Your task to perform on an android device: check data usage Image 0: 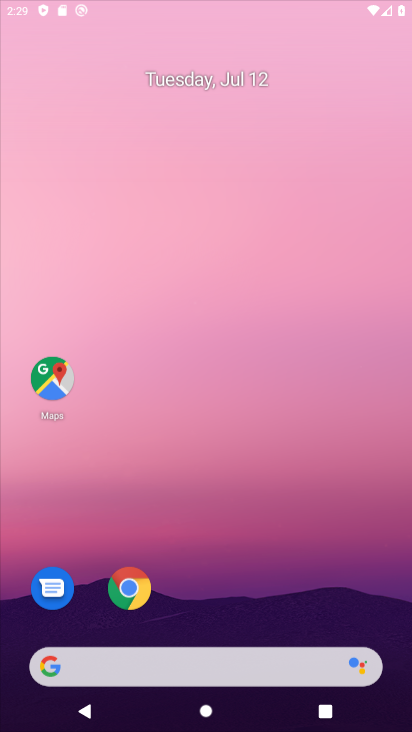
Step 0: click (155, 162)
Your task to perform on an android device: check data usage Image 1: 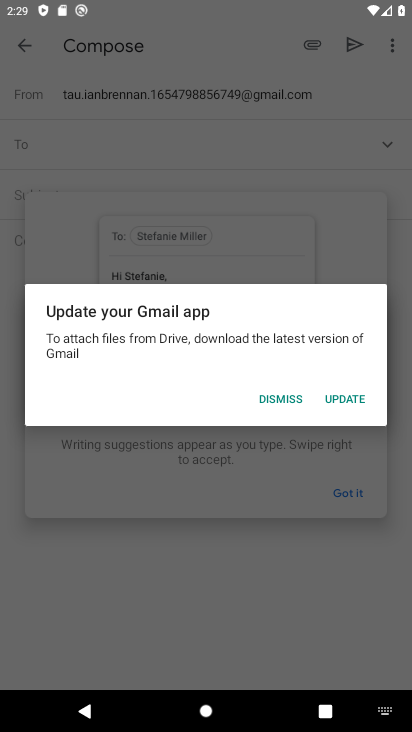
Step 1: press back button
Your task to perform on an android device: check data usage Image 2: 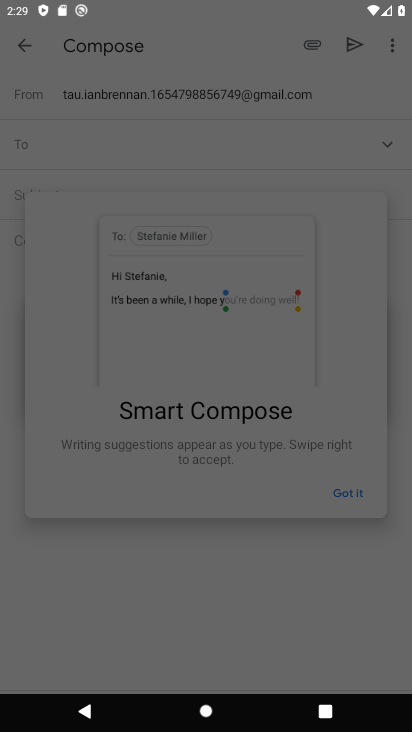
Step 2: press back button
Your task to perform on an android device: check data usage Image 3: 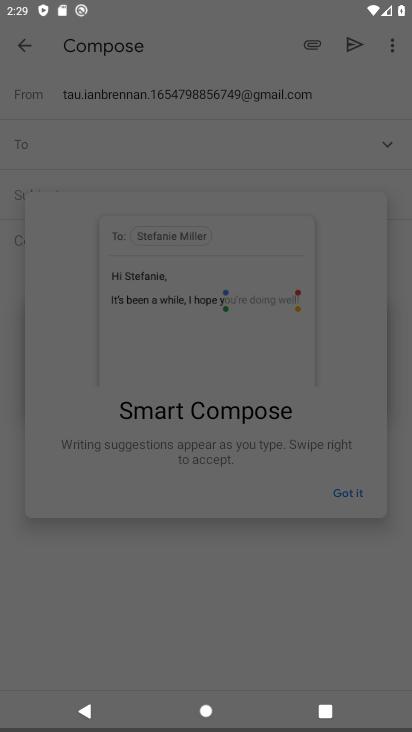
Step 3: click (273, 396)
Your task to perform on an android device: check data usage Image 4: 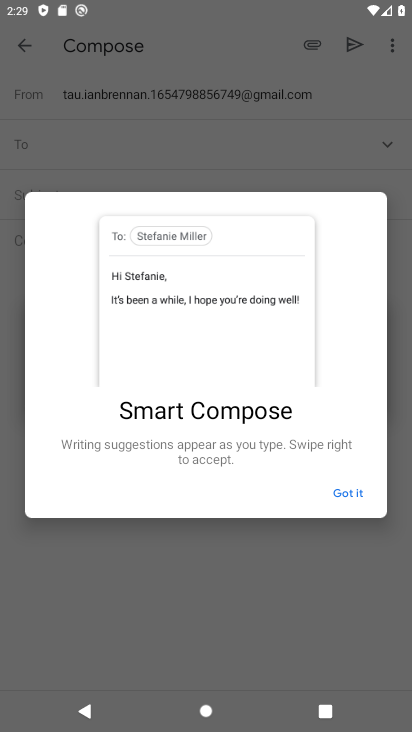
Step 4: click (372, 495)
Your task to perform on an android device: check data usage Image 5: 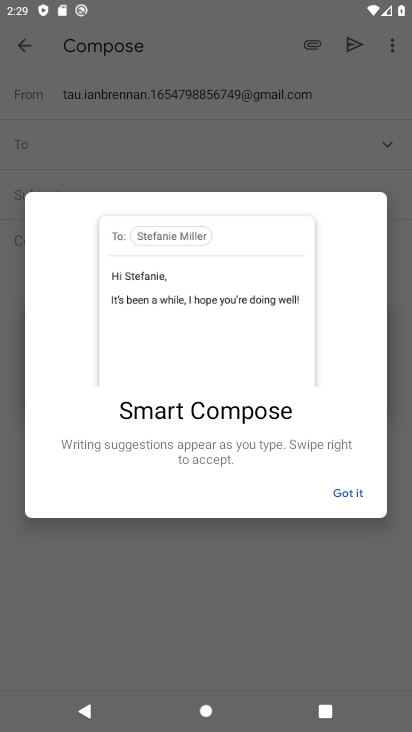
Step 5: click (370, 495)
Your task to perform on an android device: check data usage Image 6: 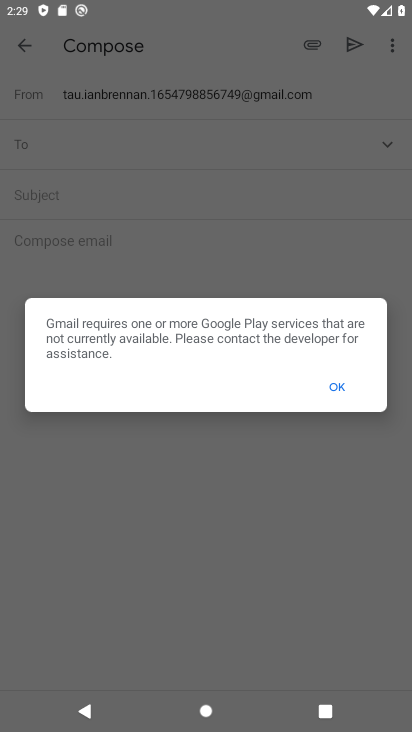
Step 6: click (328, 383)
Your task to perform on an android device: check data usage Image 7: 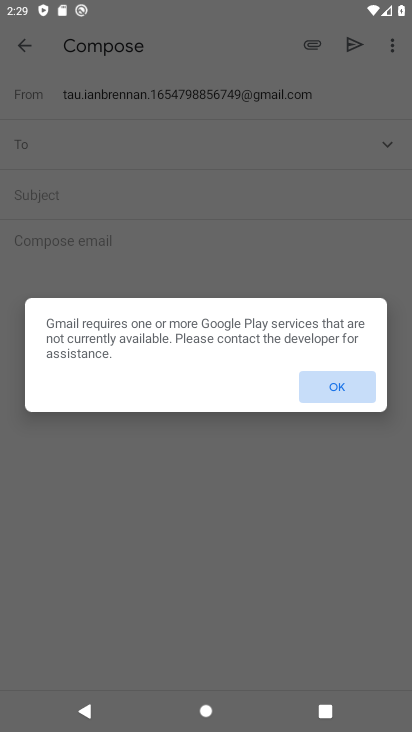
Step 7: click (328, 383)
Your task to perform on an android device: check data usage Image 8: 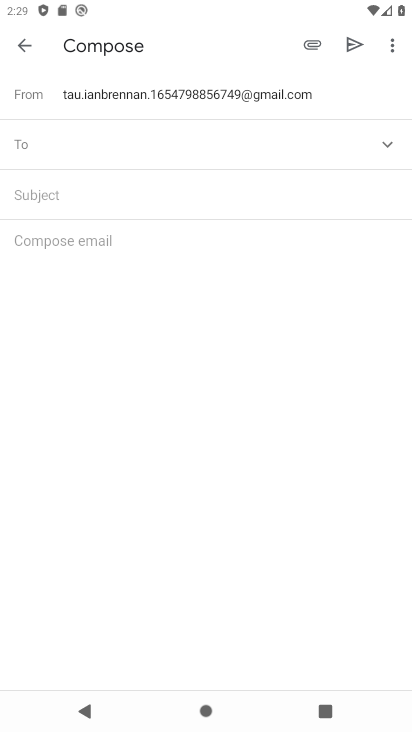
Step 8: click (328, 383)
Your task to perform on an android device: check data usage Image 9: 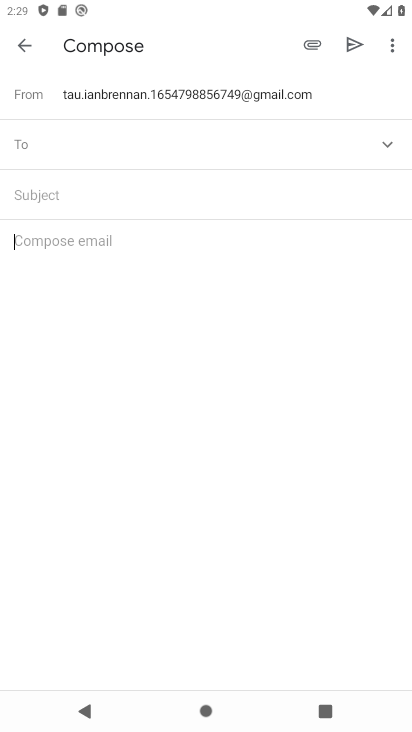
Step 9: click (329, 383)
Your task to perform on an android device: check data usage Image 10: 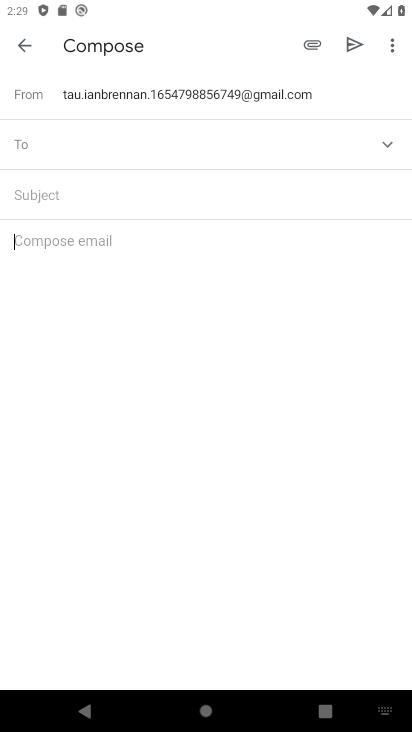
Step 10: click (21, 41)
Your task to perform on an android device: check data usage Image 11: 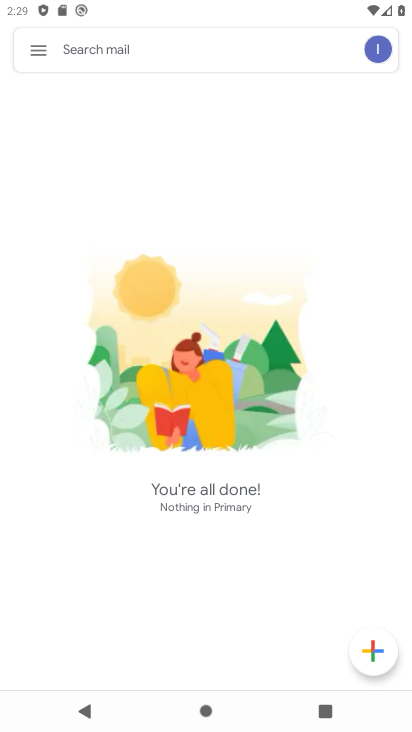
Step 11: press home button
Your task to perform on an android device: check data usage Image 12: 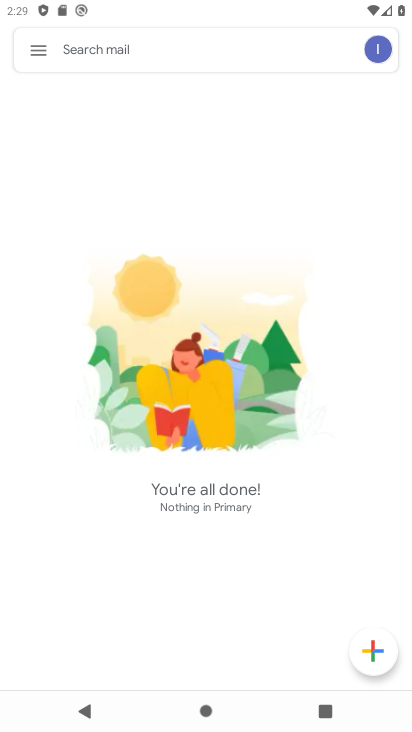
Step 12: press home button
Your task to perform on an android device: check data usage Image 13: 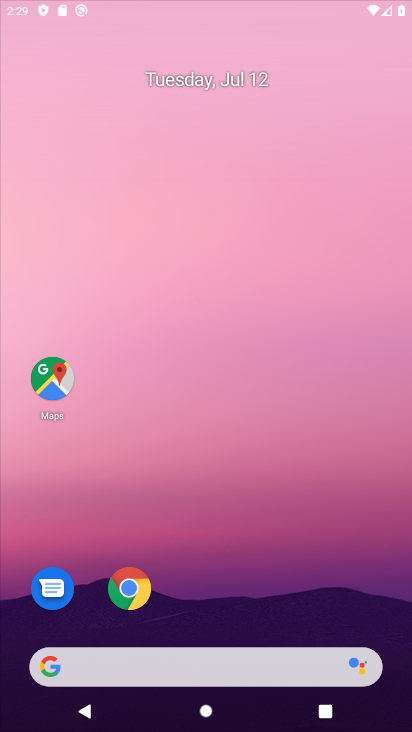
Step 13: press home button
Your task to perform on an android device: check data usage Image 14: 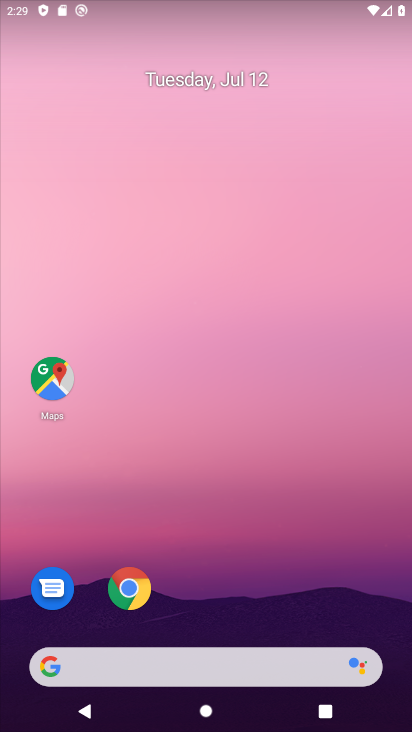
Step 14: drag from (291, 599) to (171, 111)
Your task to perform on an android device: check data usage Image 15: 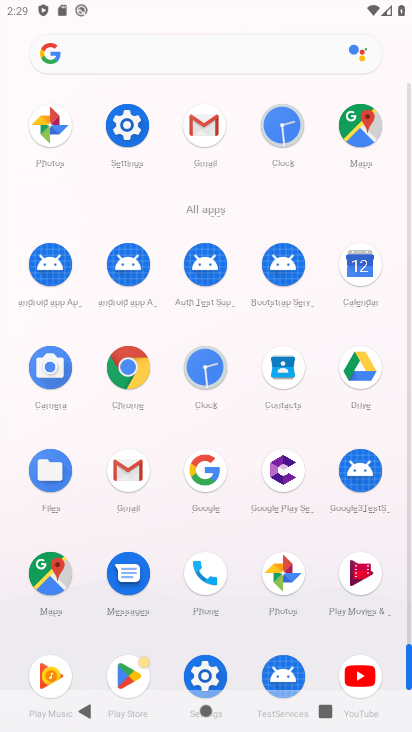
Step 15: click (120, 135)
Your task to perform on an android device: check data usage Image 16: 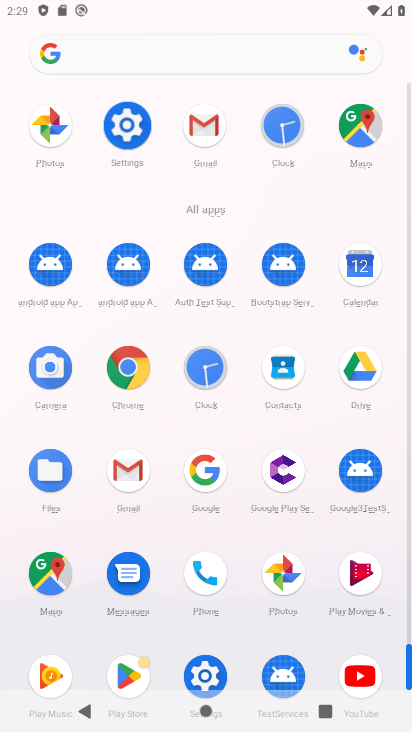
Step 16: click (120, 135)
Your task to perform on an android device: check data usage Image 17: 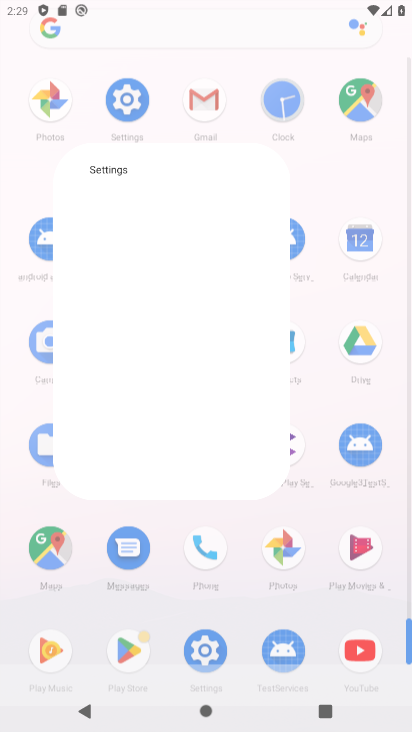
Step 17: click (120, 135)
Your task to perform on an android device: check data usage Image 18: 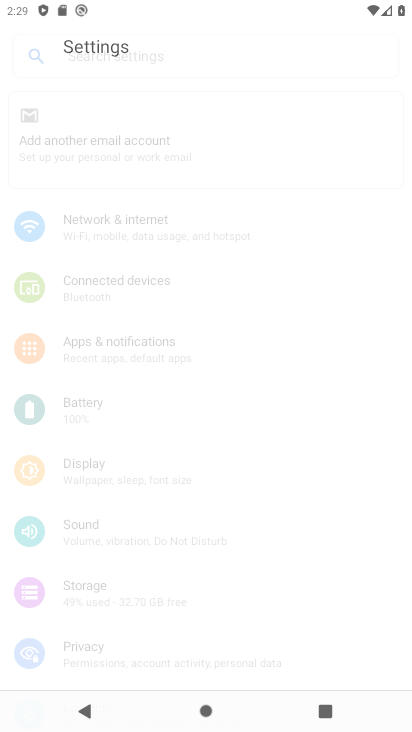
Step 18: click (120, 135)
Your task to perform on an android device: check data usage Image 19: 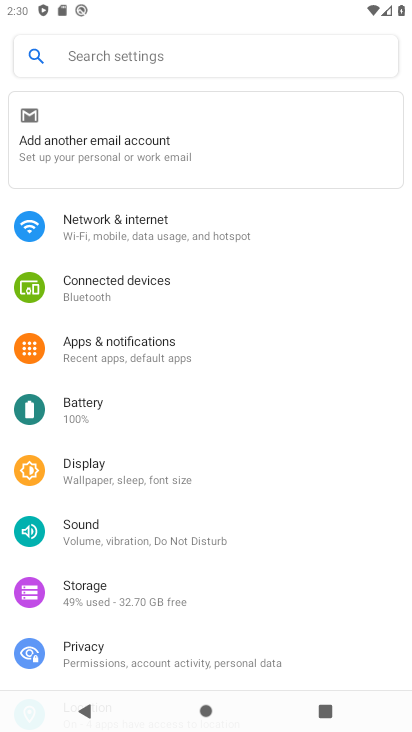
Step 19: click (120, 221)
Your task to perform on an android device: check data usage Image 20: 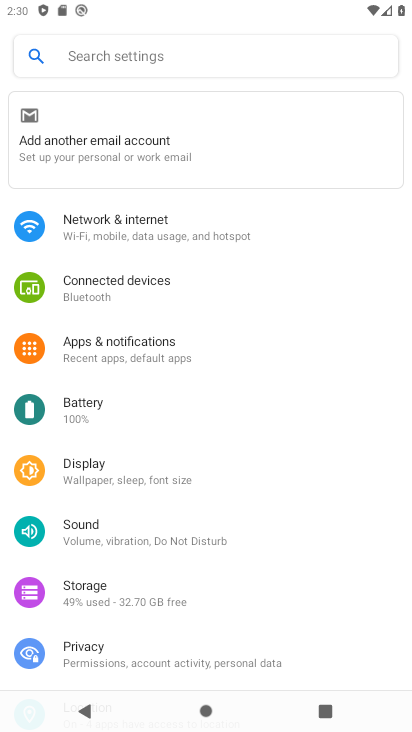
Step 20: click (120, 221)
Your task to perform on an android device: check data usage Image 21: 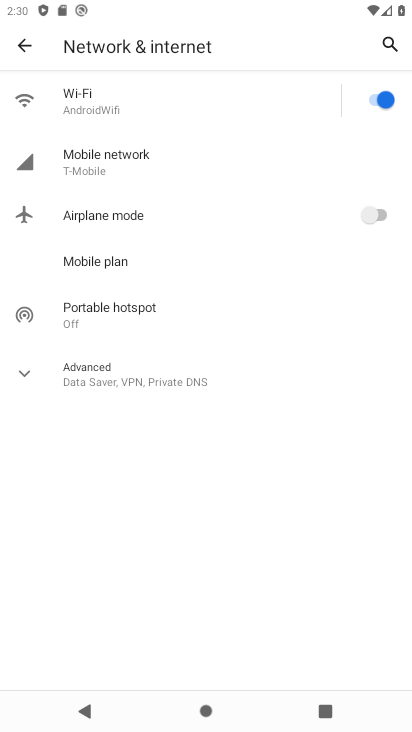
Step 21: click (110, 155)
Your task to perform on an android device: check data usage Image 22: 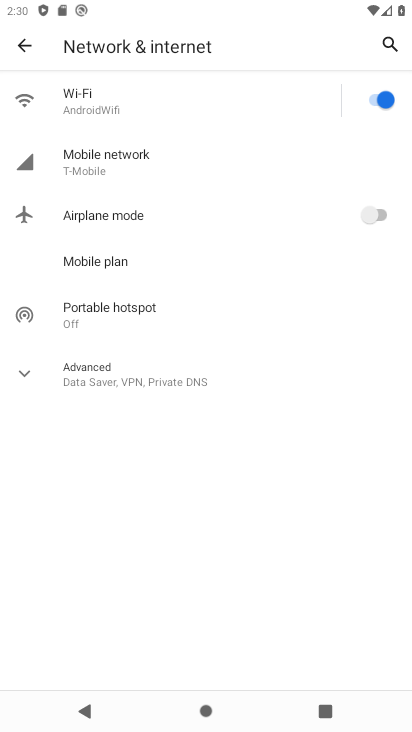
Step 22: click (111, 155)
Your task to perform on an android device: check data usage Image 23: 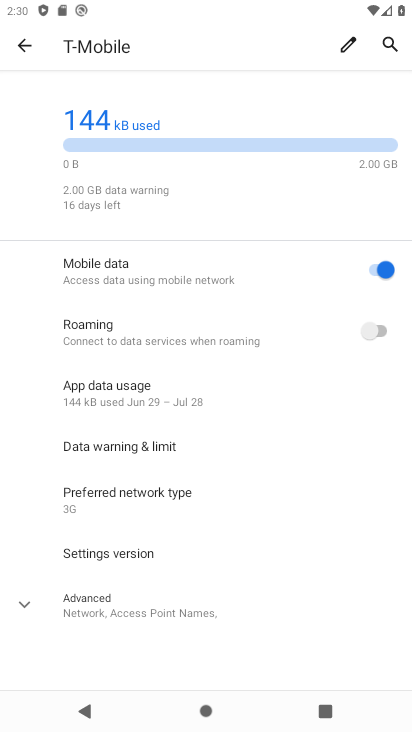
Step 23: task complete